Your task to perform on an android device: When is my next meeting? Image 0: 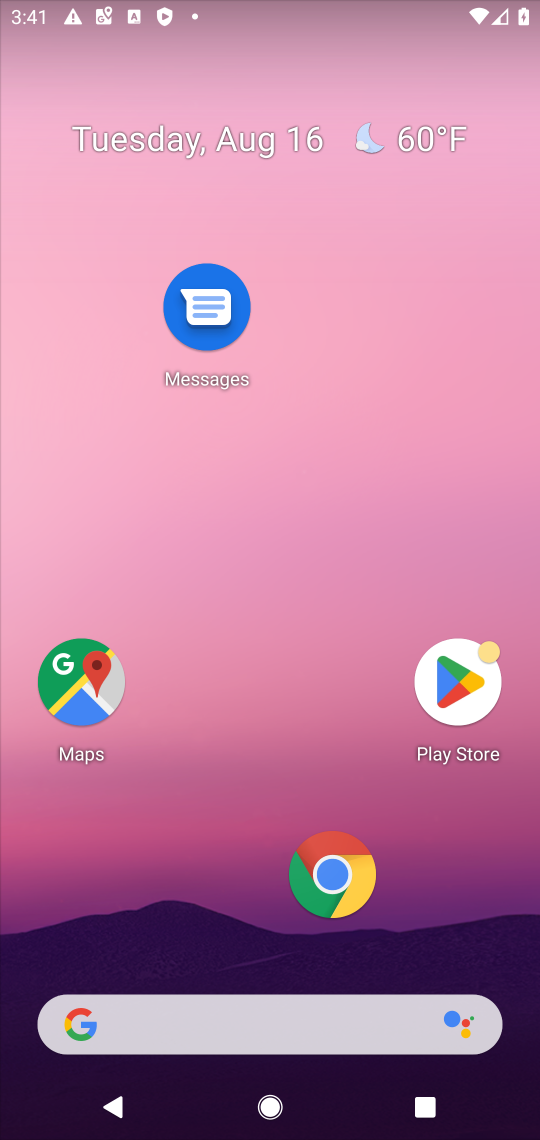
Step 0: drag from (280, 960) to (116, 139)
Your task to perform on an android device: When is my next meeting? Image 1: 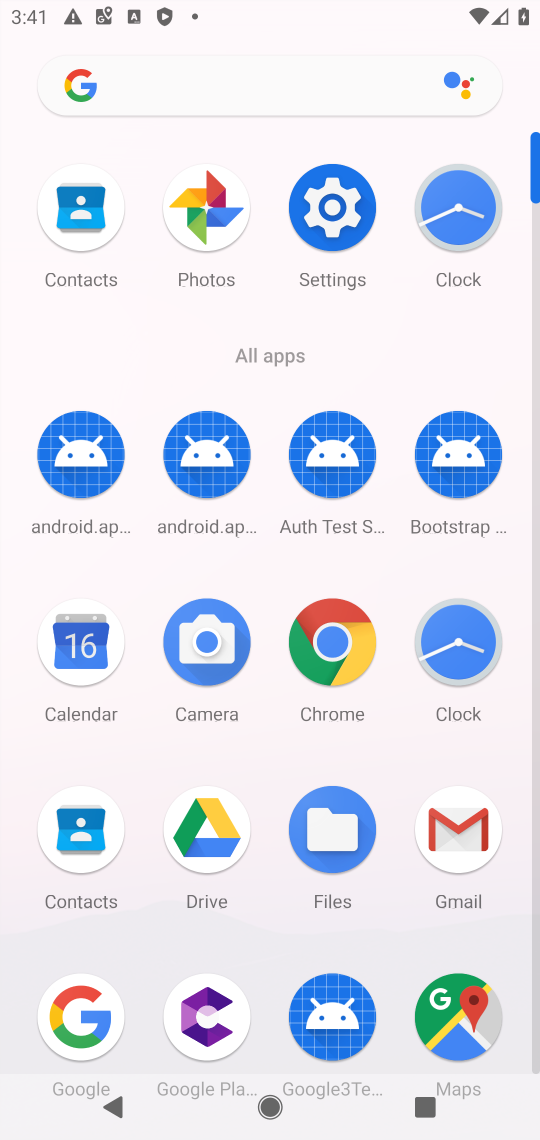
Step 1: click (99, 648)
Your task to perform on an android device: When is my next meeting? Image 2: 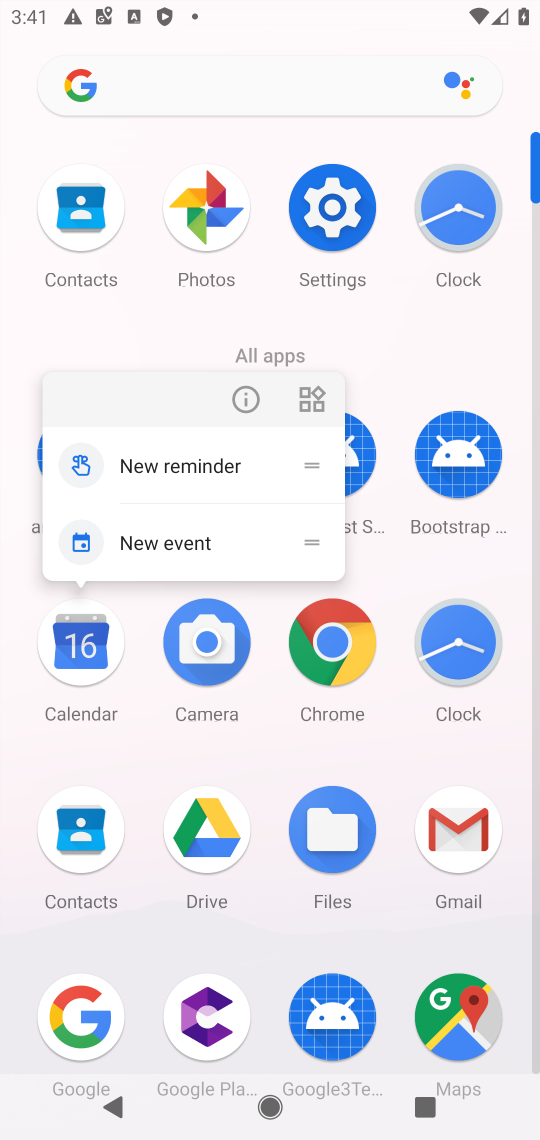
Step 2: click (84, 641)
Your task to perform on an android device: When is my next meeting? Image 3: 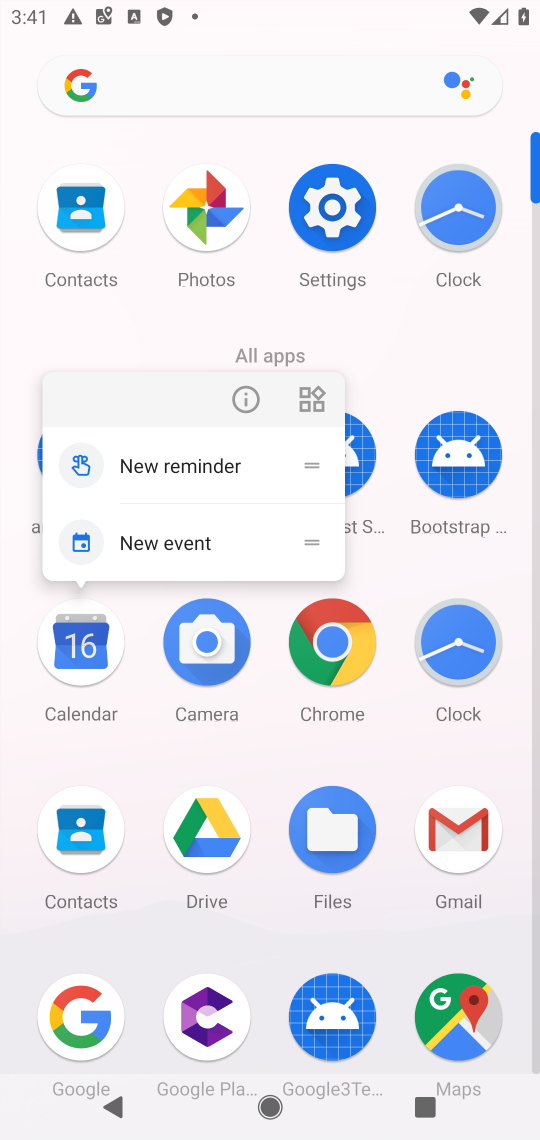
Step 3: click (84, 641)
Your task to perform on an android device: When is my next meeting? Image 4: 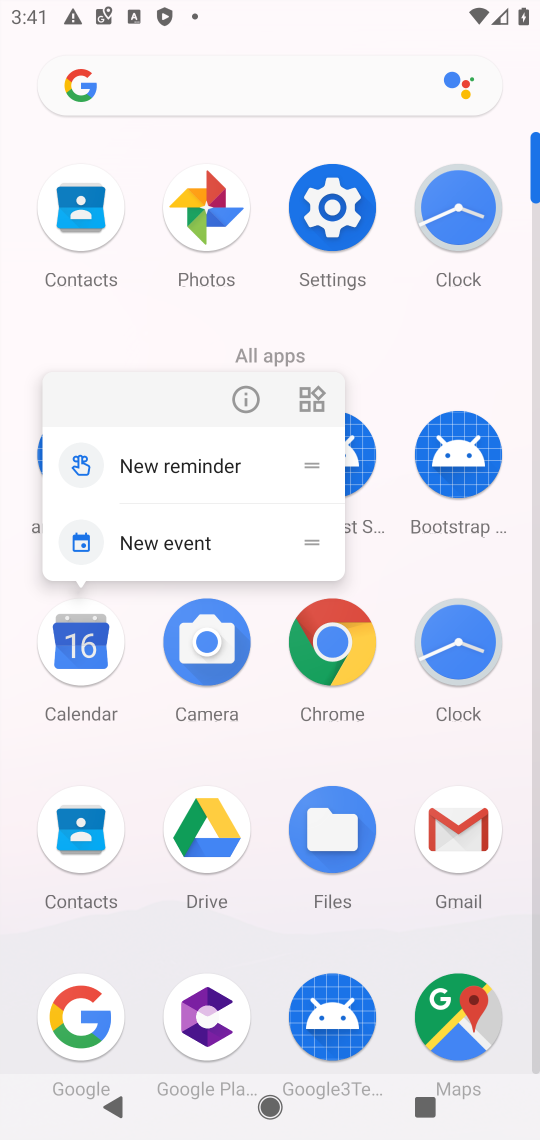
Step 4: click (84, 641)
Your task to perform on an android device: When is my next meeting? Image 5: 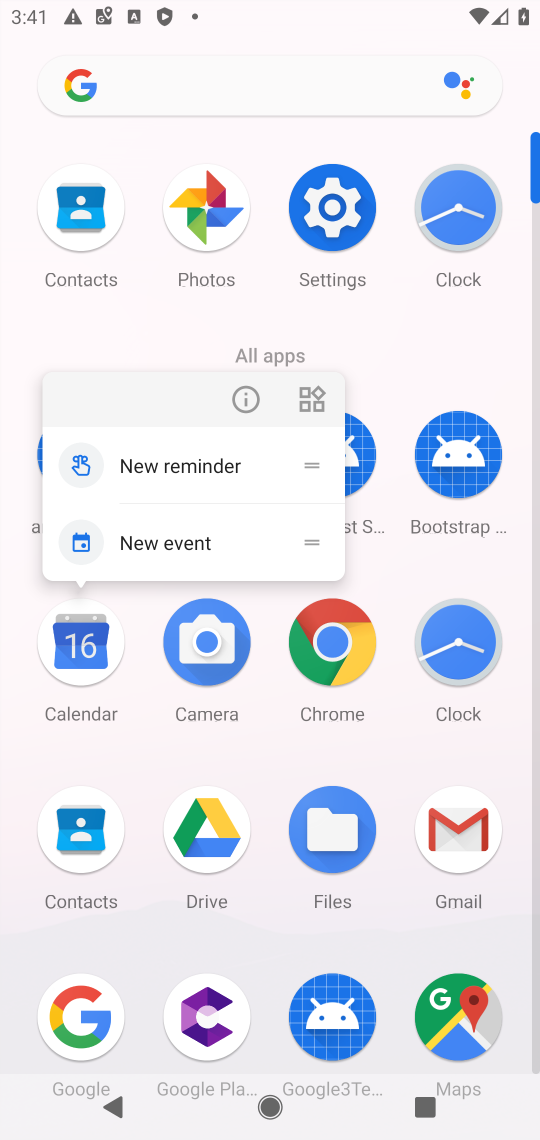
Step 5: click (84, 641)
Your task to perform on an android device: When is my next meeting? Image 6: 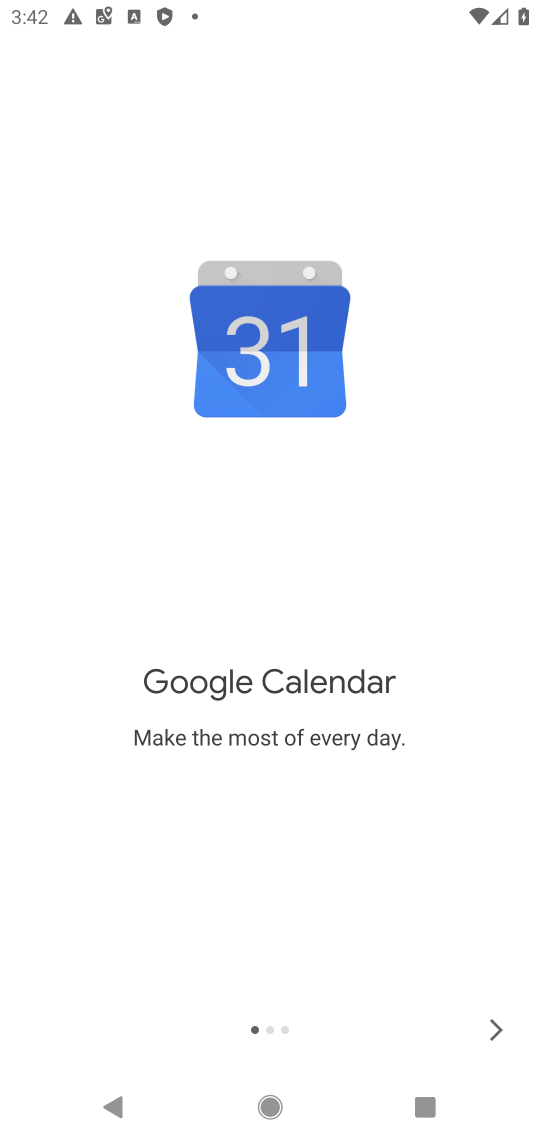
Step 6: click (492, 1024)
Your task to perform on an android device: When is my next meeting? Image 7: 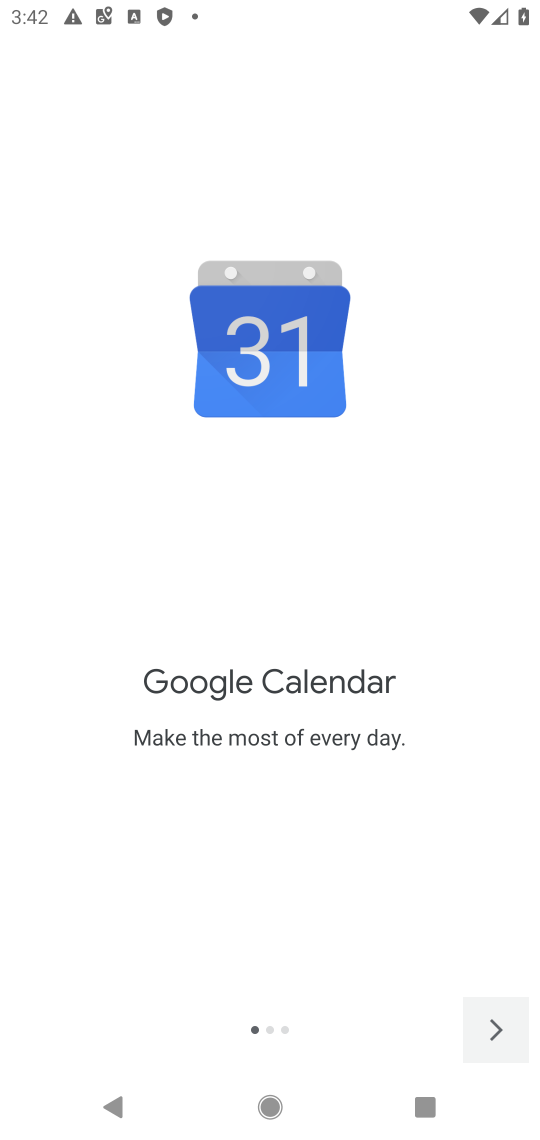
Step 7: click (492, 1024)
Your task to perform on an android device: When is my next meeting? Image 8: 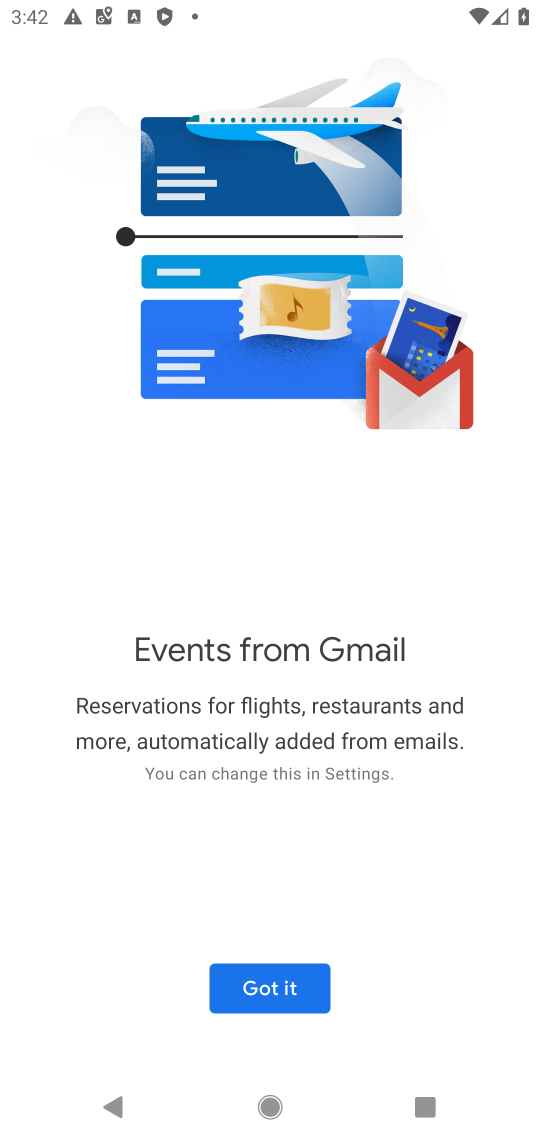
Step 8: click (281, 1000)
Your task to perform on an android device: When is my next meeting? Image 9: 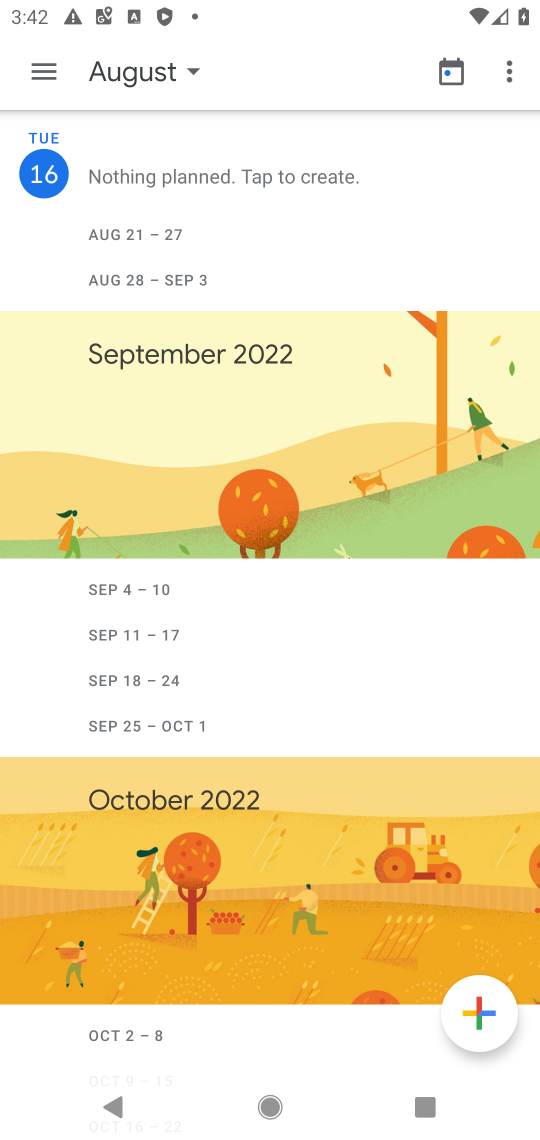
Step 9: task complete